Your task to perform on an android device: Open the map Image 0: 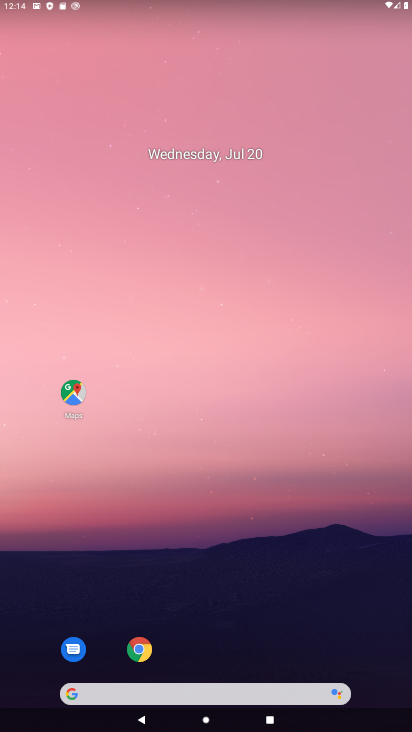
Step 0: click (79, 391)
Your task to perform on an android device: Open the map Image 1: 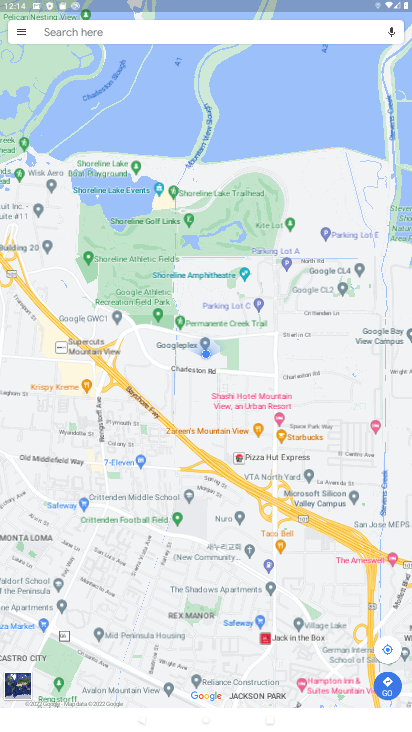
Step 1: task complete